Your task to perform on an android device: Toggle the flashlight Image 0: 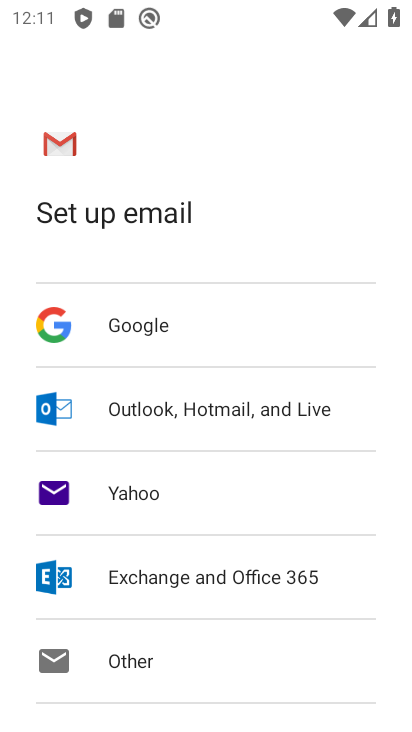
Step 0: press back button
Your task to perform on an android device: Toggle the flashlight Image 1: 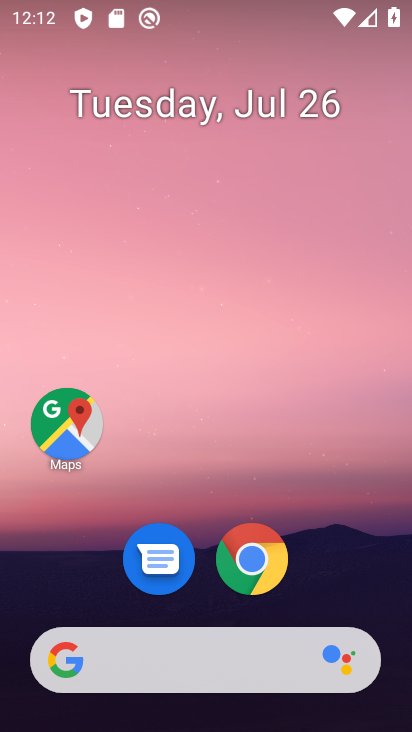
Step 1: drag from (95, 592) to (287, 1)
Your task to perform on an android device: Toggle the flashlight Image 2: 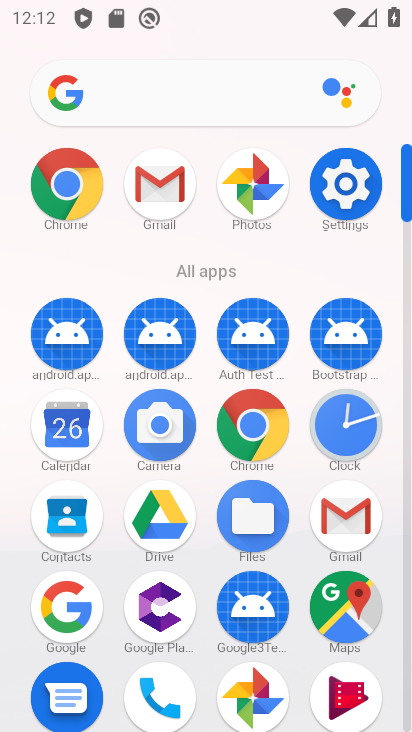
Step 2: click (342, 177)
Your task to perform on an android device: Toggle the flashlight Image 3: 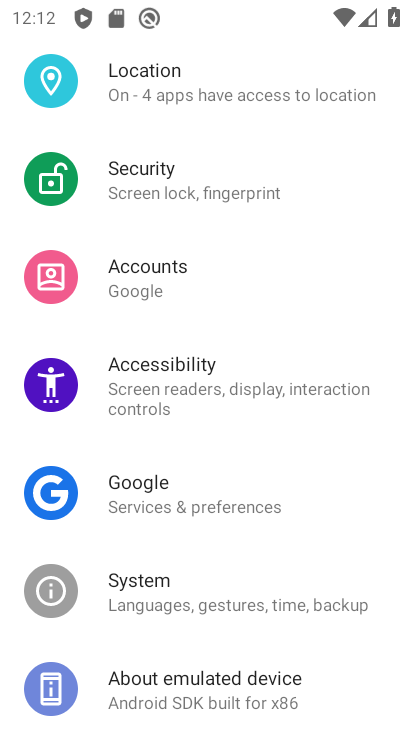
Step 3: drag from (219, 124) to (179, 700)
Your task to perform on an android device: Toggle the flashlight Image 4: 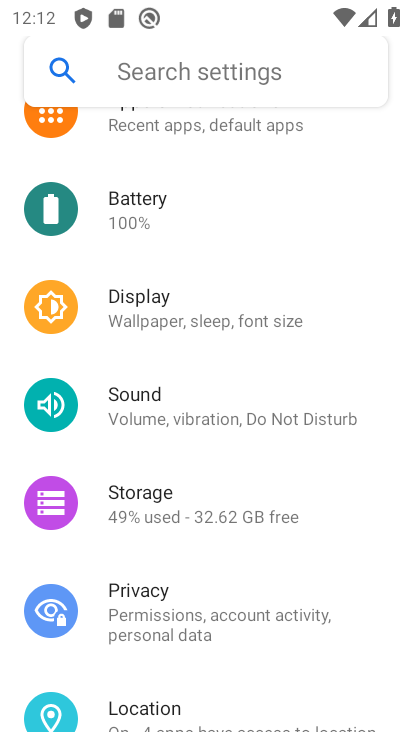
Step 4: click (213, 101)
Your task to perform on an android device: Toggle the flashlight Image 5: 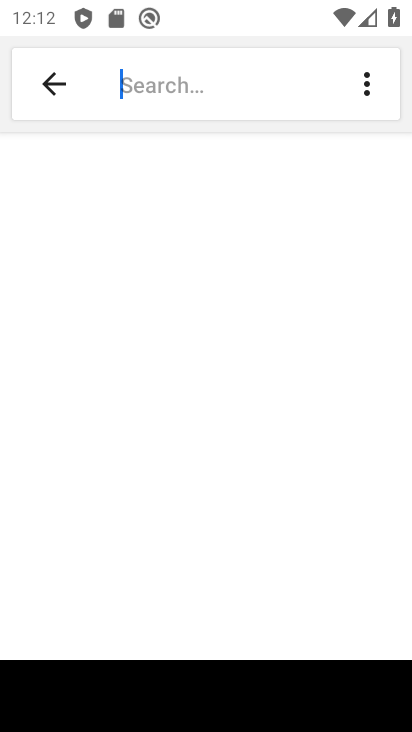
Step 5: type "flashlight"
Your task to perform on an android device: Toggle the flashlight Image 6: 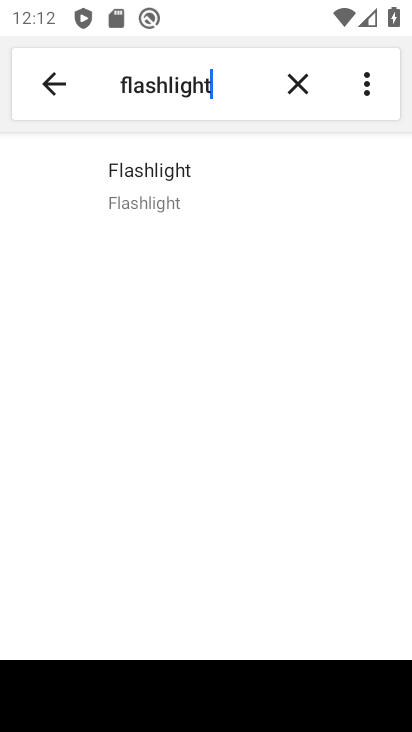
Step 6: click (178, 179)
Your task to perform on an android device: Toggle the flashlight Image 7: 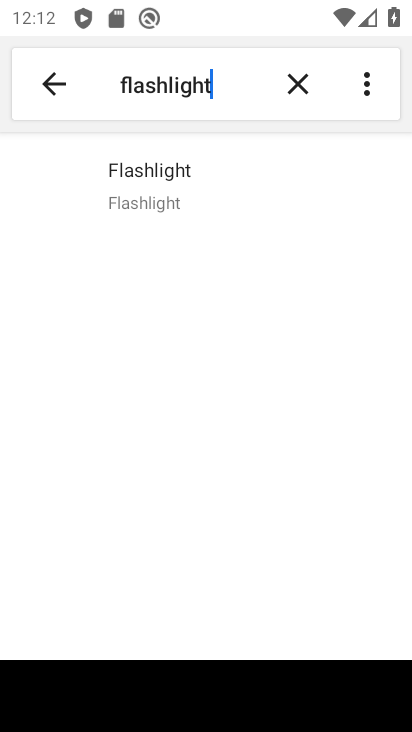
Step 7: task complete